Your task to perform on an android device: turn off location history Image 0: 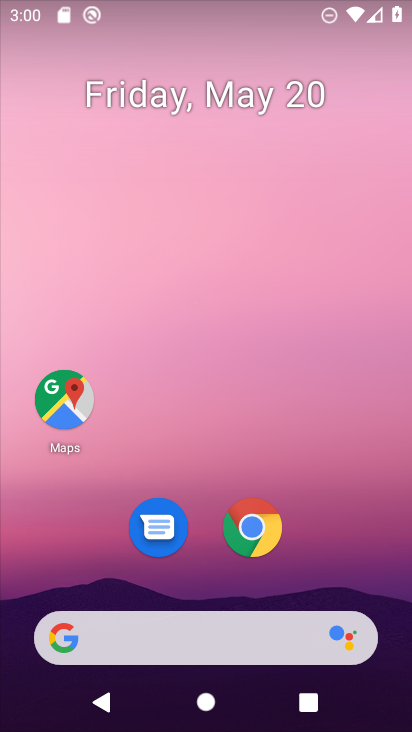
Step 0: drag from (204, 531) to (330, 44)
Your task to perform on an android device: turn off location history Image 1: 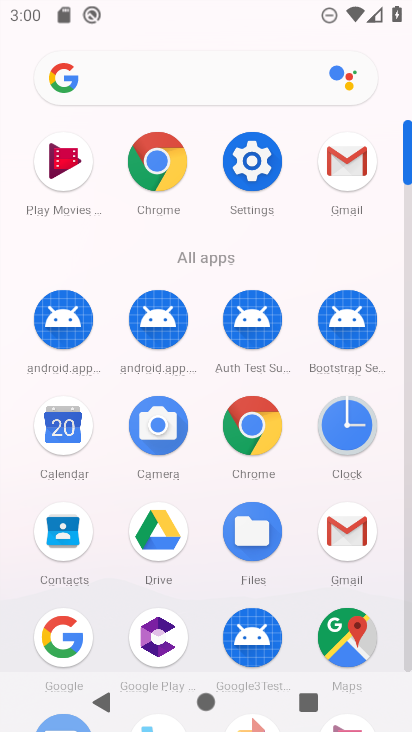
Step 1: click (254, 175)
Your task to perform on an android device: turn off location history Image 2: 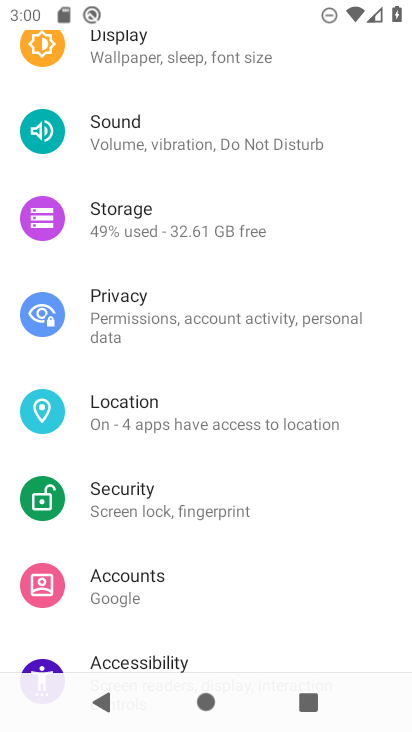
Step 2: click (193, 411)
Your task to perform on an android device: turn off location history Image 3: 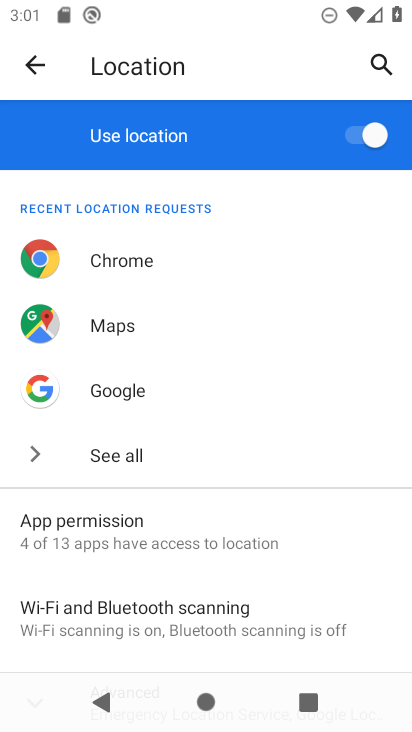
Step 3: drag from (230, 602) to (330, 167)
Your task to perform on an android device: turn off location history Image 4: 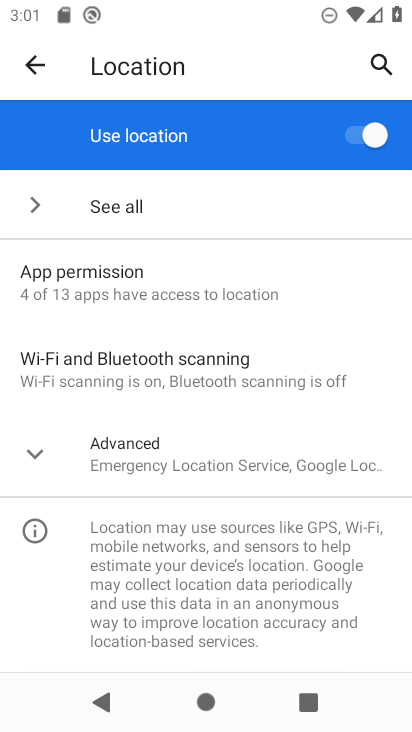
Step 4: click (181, 473)
Your task to perform on an android device: turn off location history Image 5: 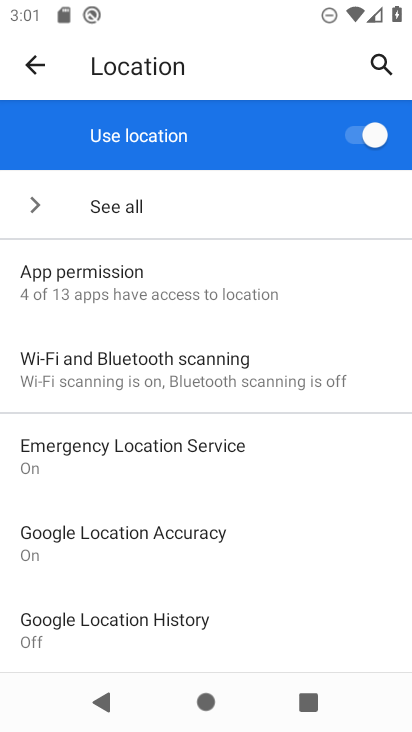
Step 5: click (170, 618)
Your task to perform on an android device: turn off location history Image 6: 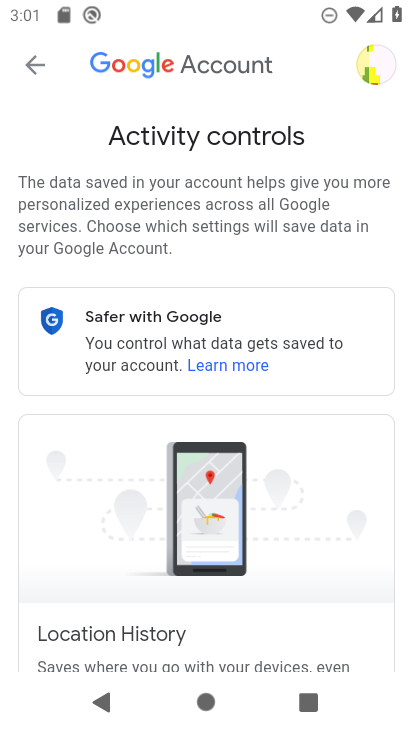
Step 6: task complete